Your task to perform on an android device: What is the news today? Image 0: 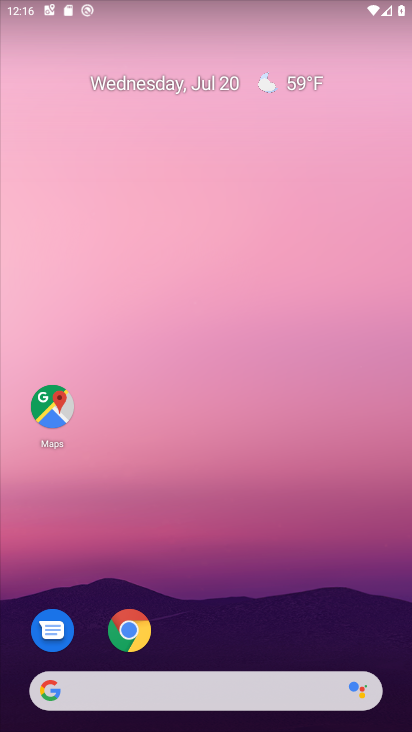
Step 0: drag from (3, 342) to (408, 354)
Your task to perform on an android device: What is the news today? Image 1: 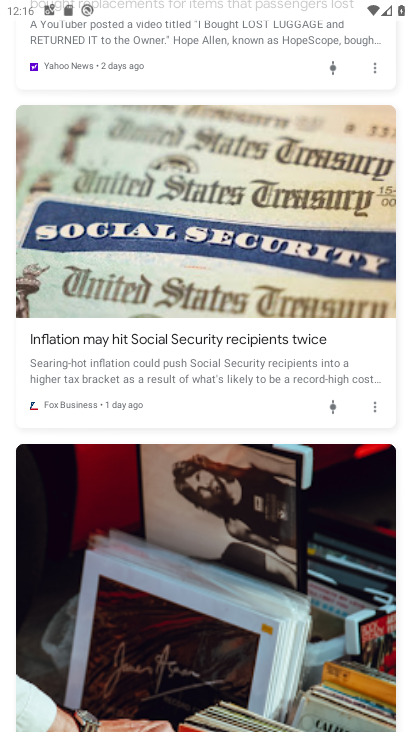
Step 1: task complete